Your task to perform on an android device: turn notification dots off Image 0: 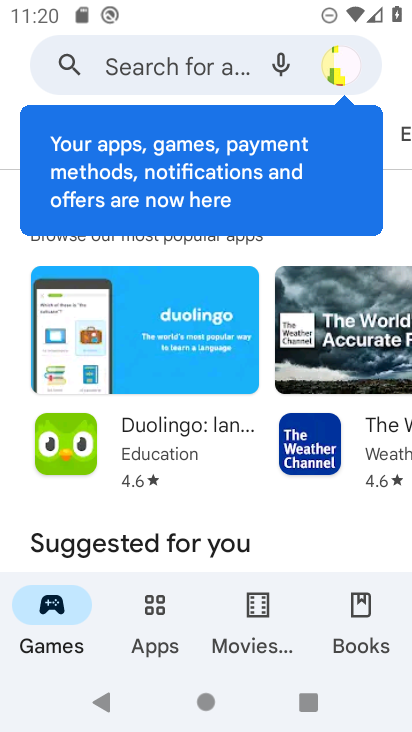
Step 0: press home button
Your task to perform on an android device: turn notification dots off Image 1: 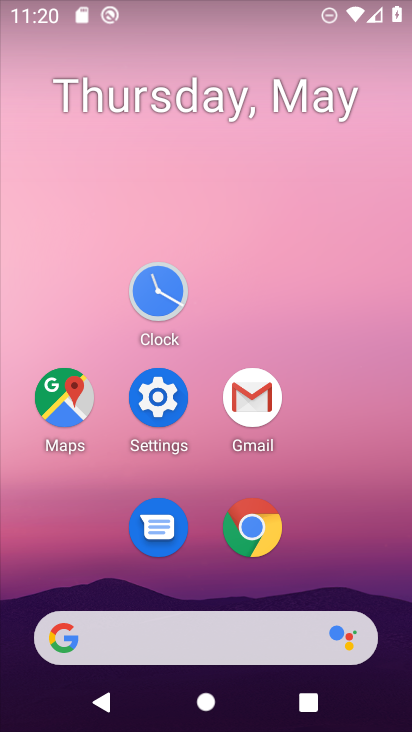
Step 1: click (164, 396)
Your task to perform on an android device: turn notification dots off Image 2: 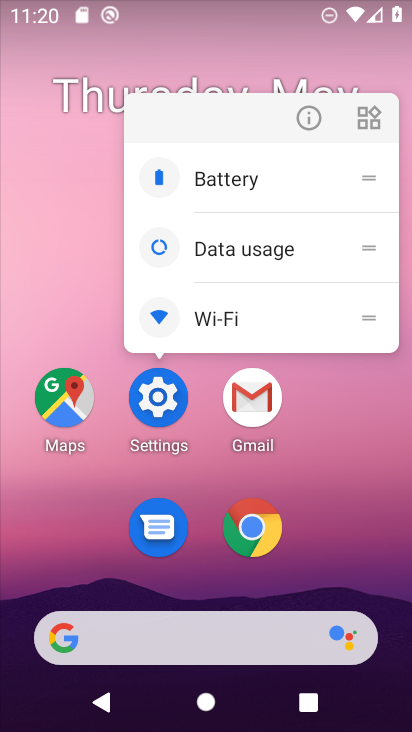
Step 2: click (151, 425)
Your task to perform on an android device: turn notification dots off Image 3: 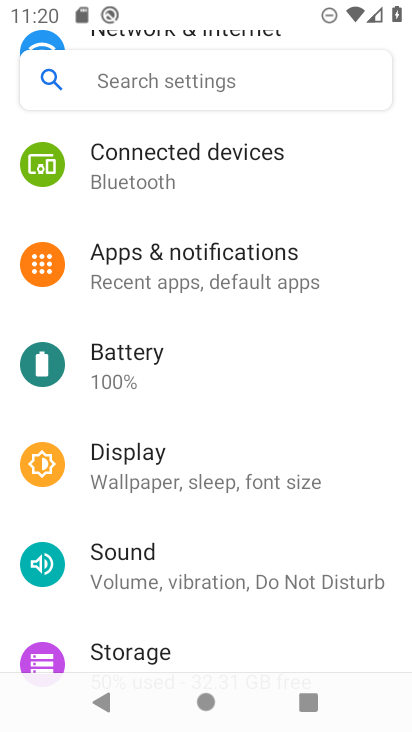
Step 3: click (276, 261)
Your task to perform on an android device: turn notification dots off Image 4: 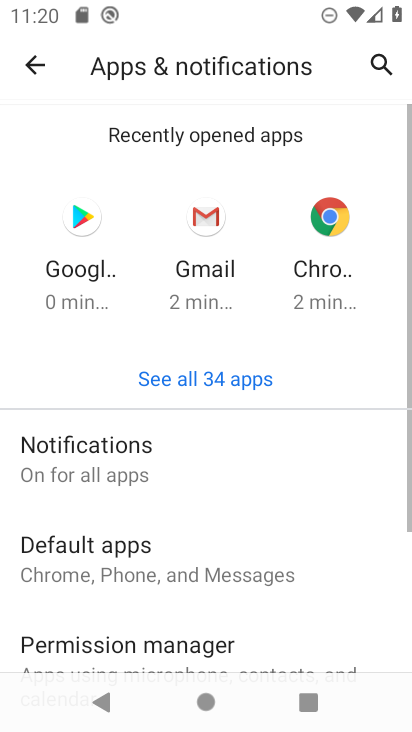
Step 4: drag from (242, 530) to (262, 262)
Your task to perform on an android device: turn notification dots off Image 5: 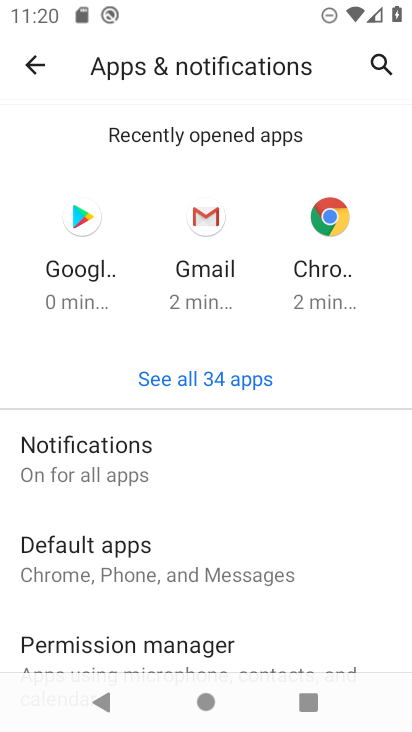
Step 5: drag from (236, 558) to (261, 289)
Your task to perform on an android device: turn notification dots off Image 6: 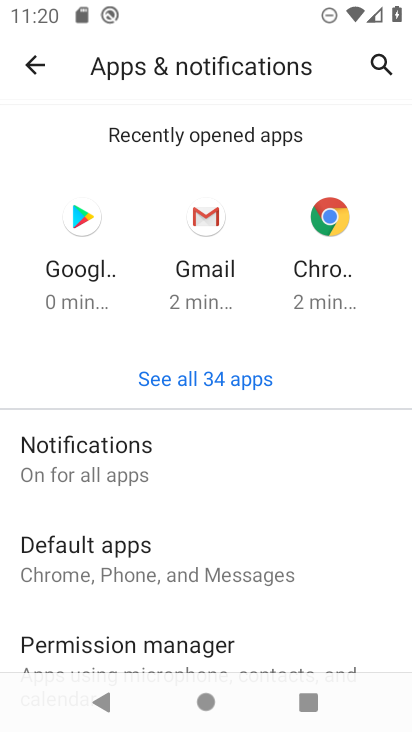
Step 6: drag from (154, 529) to (263, 311)
Your task to perform on an android device: turn notification dots off Image 7: 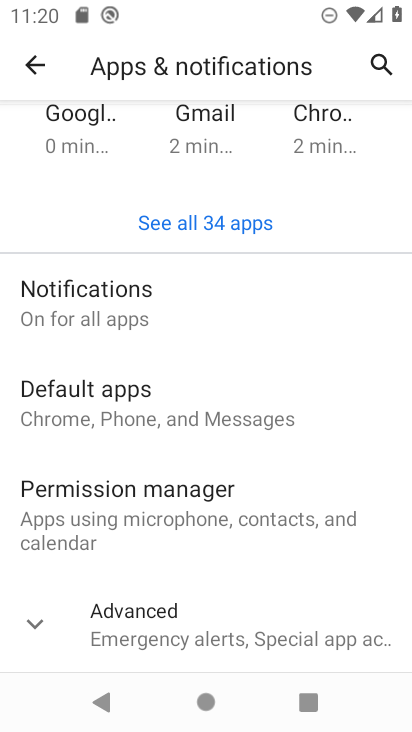
Step 7: click (285, 324)
Your task to perform on an android device: turn notification dots off Image 8: 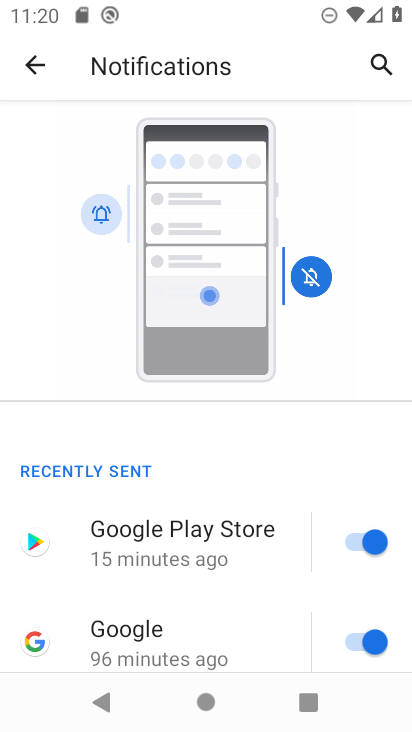
Step 8: drag from (226, 586) to (256, 108)
Your task to perform on an android device: turn notification dots off Image 9: 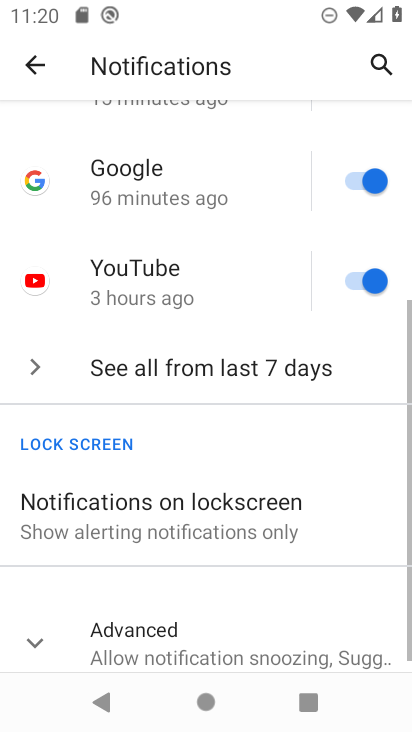
Step 9: drag from (219, 470) to (249, 292)
Your task to perform on an android device: turn notification dots off Image 10: 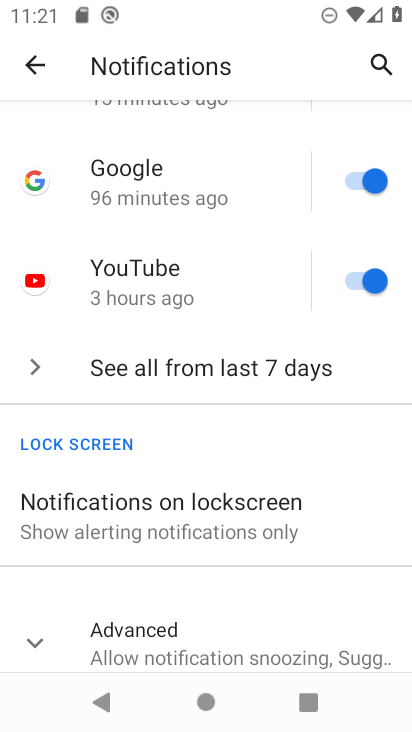
Step 10: drag from (197, 588) to (256, 322)
Your task to perform on an android device: turn notification dots off Image 11: 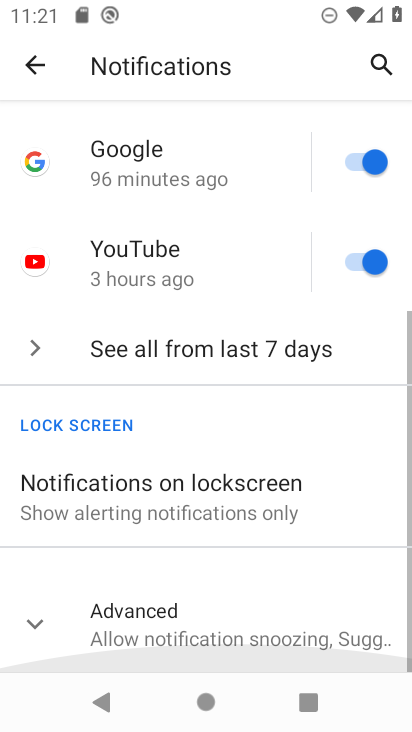
Step 11: click (198, 629)
Your task to perform on an android device: turn notification dots off Image 12: 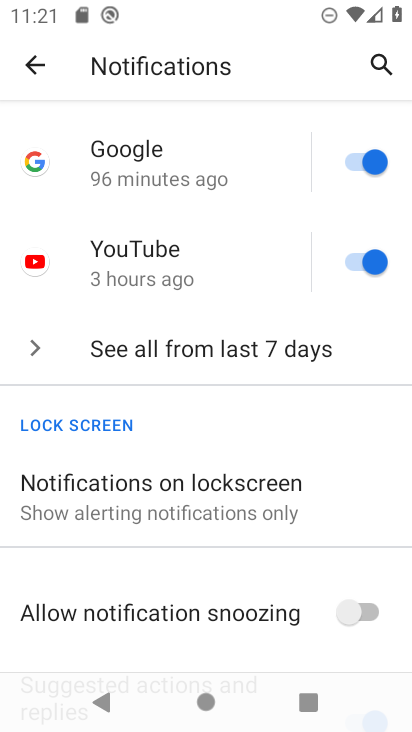
Step 12: drag from (266, 573) to (310, 366)
Your task to perform on an android device: turn notification dots off Image 13: 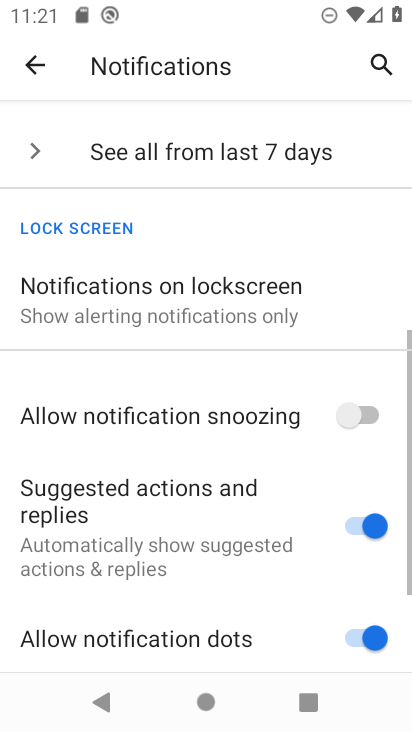
Step 13: drag from (243, 570) to (287, 399)
Your task to perform on an android device: turn notification dots off Image 14: 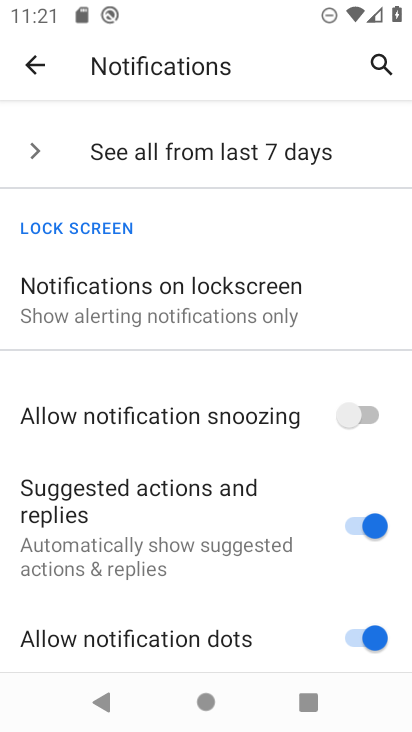
Step 14: click (321, 628)
Your task to perform on an android device: turn notification dots off Image 15: 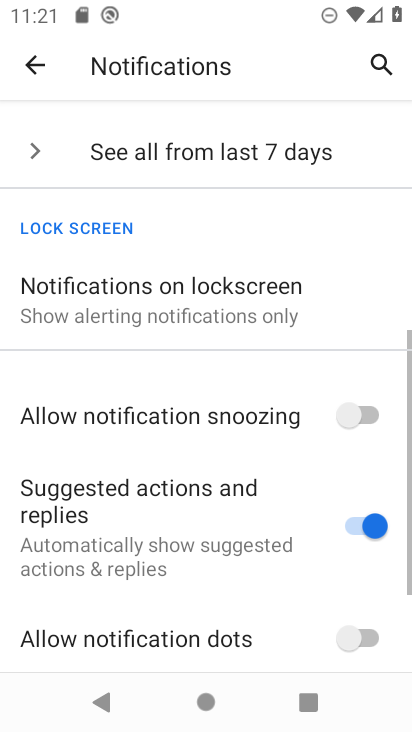
Step 15: task complete